Your task to perform on an android device: Open calendar and show me the fourth week of next month Image 0: 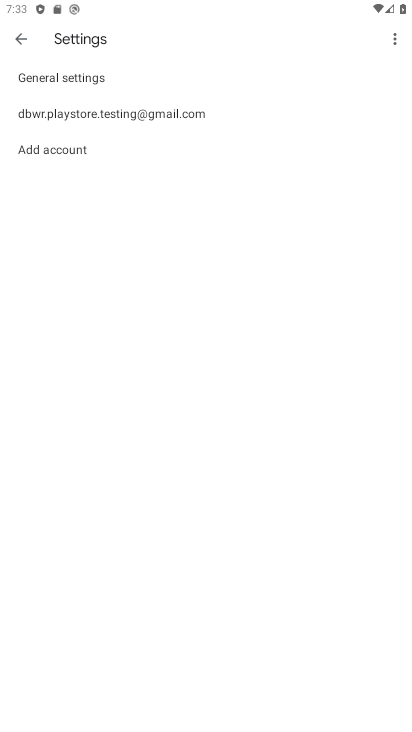
Step 0: press home button
Your task to perform on an android device: Open calendar and show me the fourth week of next month Image 1: 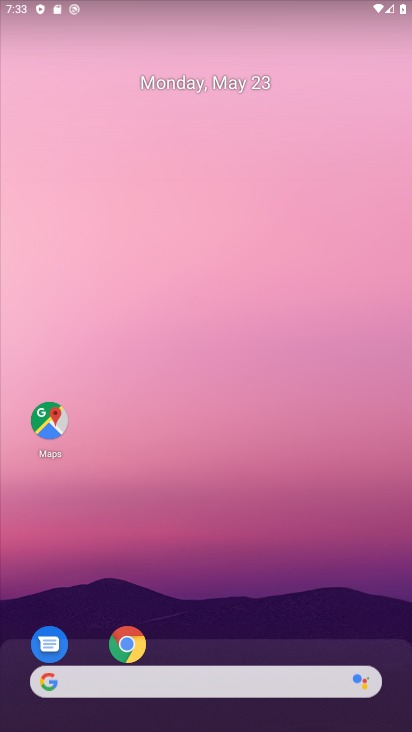
Step 1: drag from (78, 501) to (307, 91)
Your task to perform on an android device: Open calendar and show me the fourth week of next month Image 2: 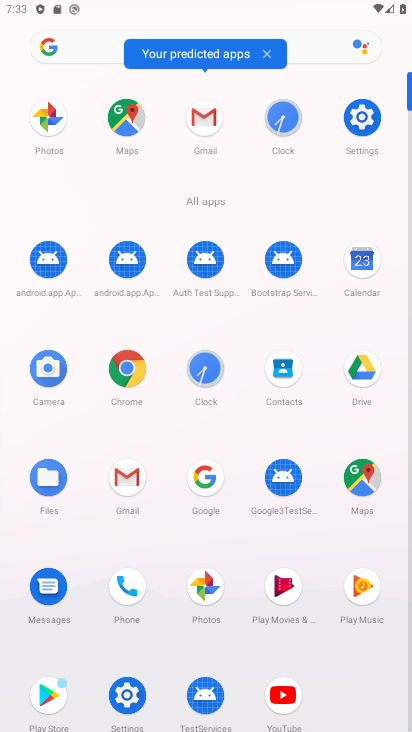
Step 2: click (362, 270)
Your task to perform on an android device: Open calendar and show me the fourth week of next month Image 3: 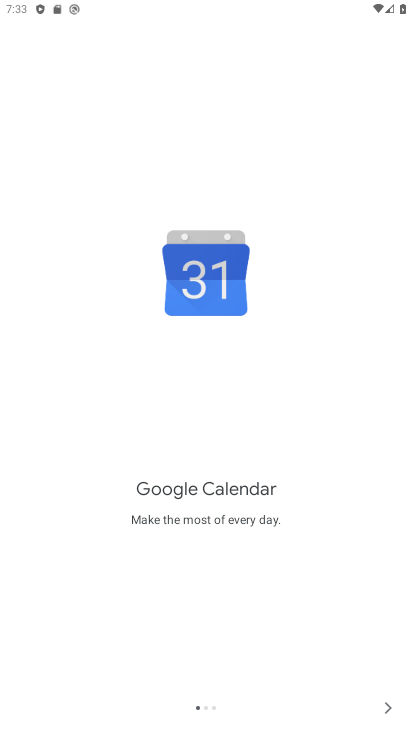
Step 3: click (388, 703)
Your task to perform on an android device: Open calendar and show me the fourth week of next month Image 4: 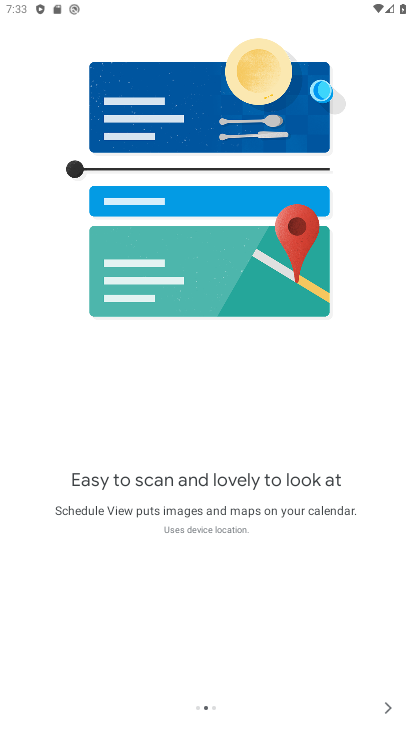
Step 4: click (389, 702)
Your task to perform on an android device: Open calendar and show me the fourth week of next month Image 5: 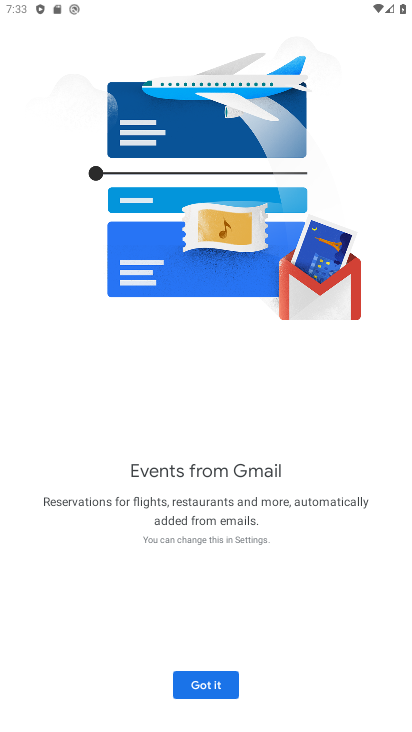
Step 5: click (202, 690)
Your task to perform on an android device: Open calendar and show me the fourth week of next month Image 6: 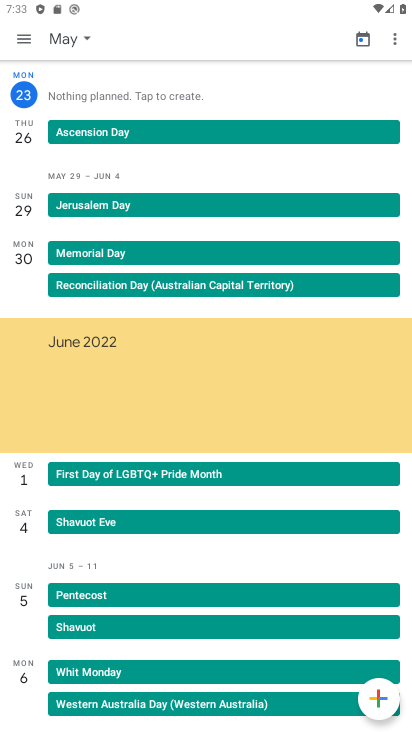
Step 6: click (68, 35)
Your task to perform on an android device: Open calendar and show me the fourth week of next month Image 7: 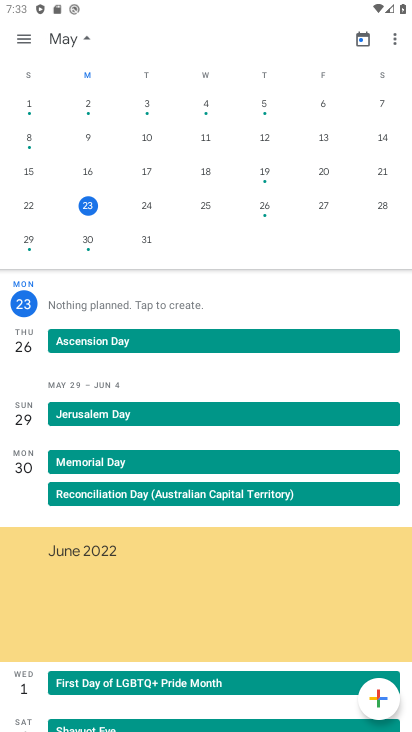
Step 7: drag from (403, 136) to (11, 134)
Your task to perform on an android device: Open calendar and show me the fourth week of next month Image 8: 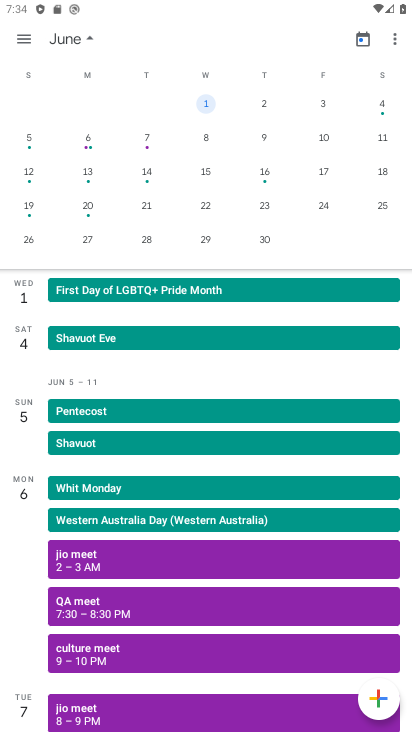
Step 8: click (200, 141)
Your task to perform on an android device: Open calendar and show me the fourth week of next month Image 9: 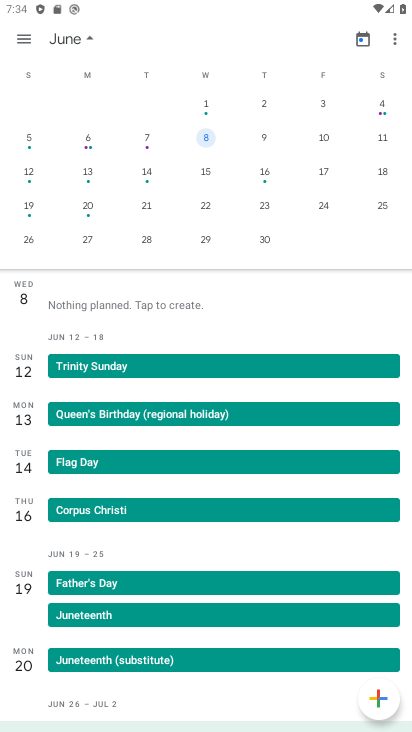
Step 9: click (212, 173)
Your task to perform on an android device: Open calendar and show me the fourth week of next month Image 10: 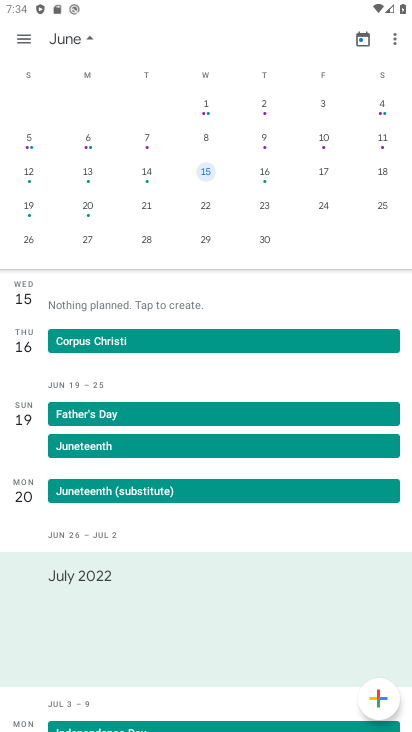
Step 10: click (212, 195)
Your task to perform on an android device: Open calendar and show me the fourth week of next month Image 11: 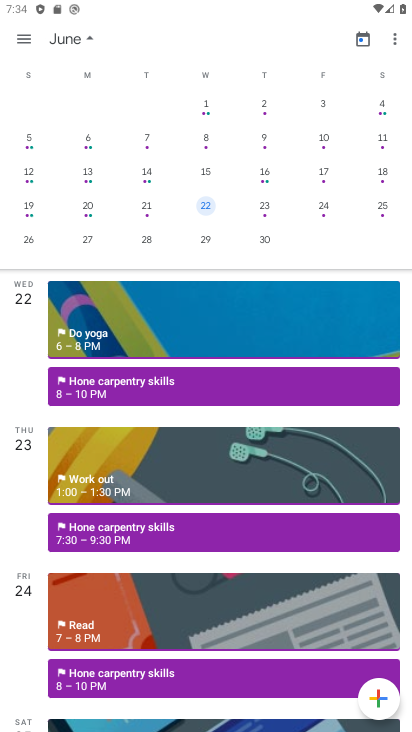
Step 11: task complete